Your task to perform on an android device: Open display settings Image 0: 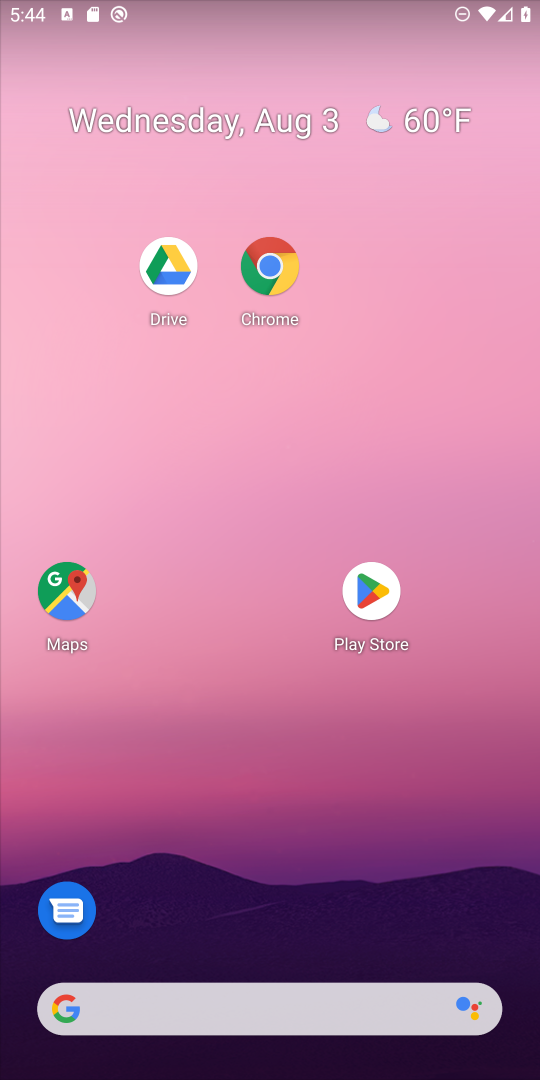
Step 0: drag from (302, 988) to (534, 244)
Your task to perform on an android device: Open display settings Image 1: 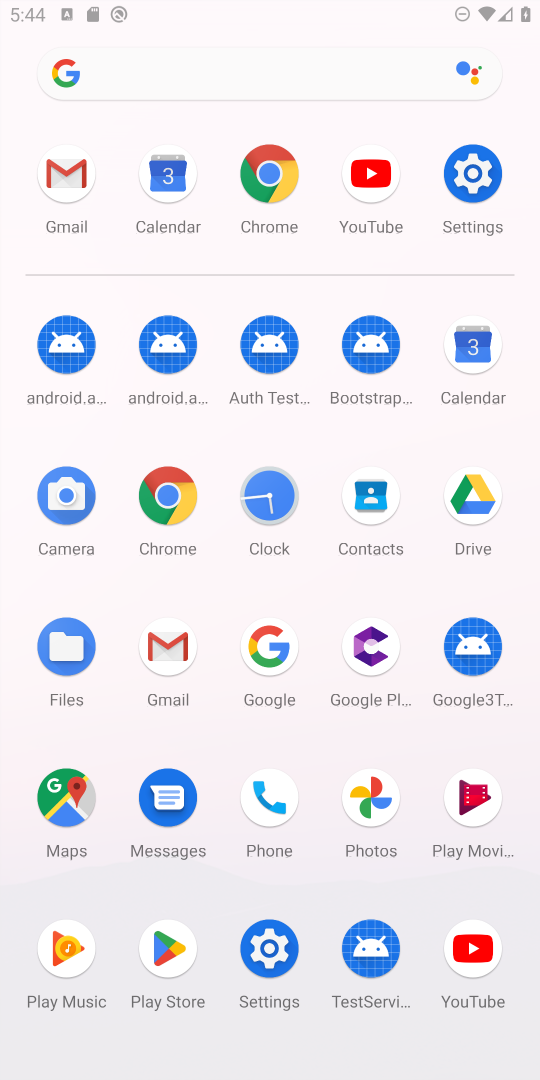
Step 1: click (465, 173)
Your task to perform on an android device: Open display settings Image 2: 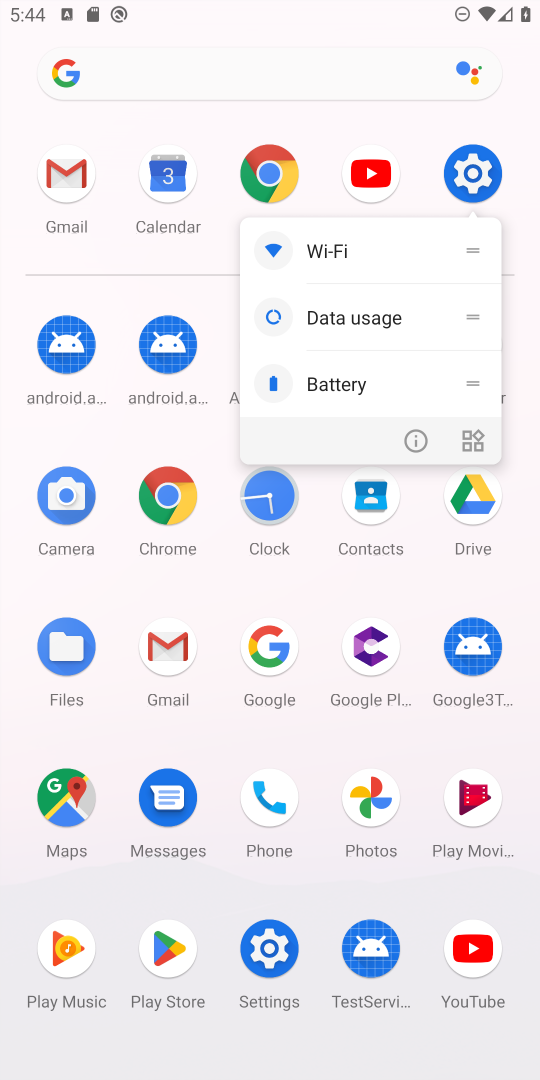
Step 2: click (465, 171)
Your task to perform on an android device: Open display settings Image 3: 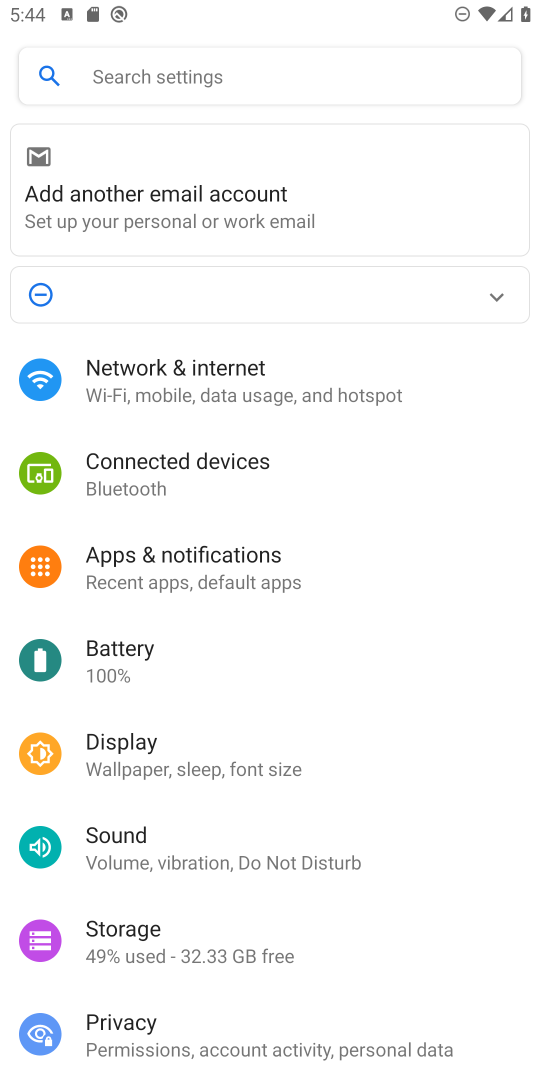
Step 3: click (175, 750)
Your task to perform on an android device: Open display settings Image 4: 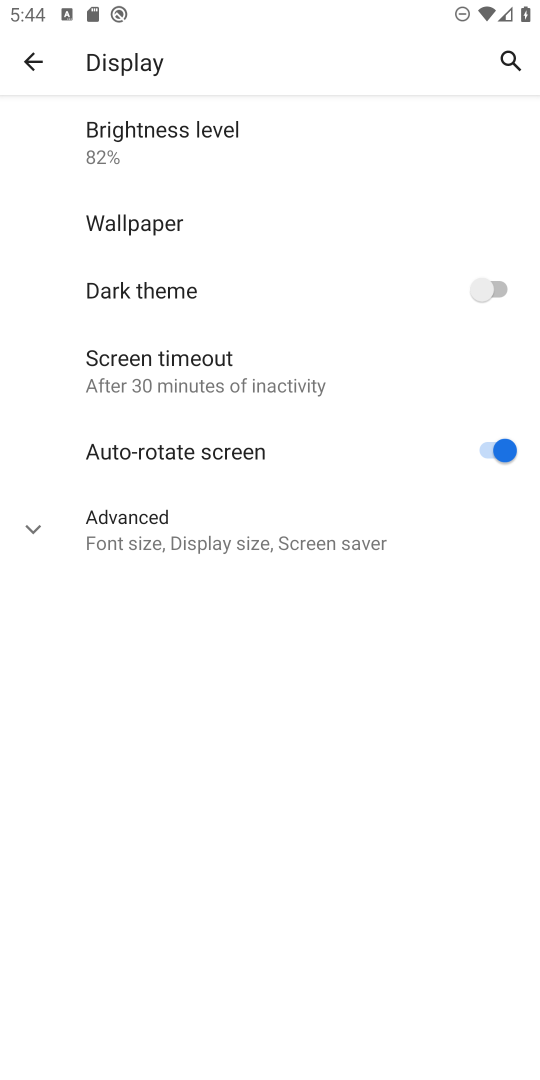
Step 4: task complete